Your task to perform on an android device: turn off notifications settings in the gmail app Image 0: 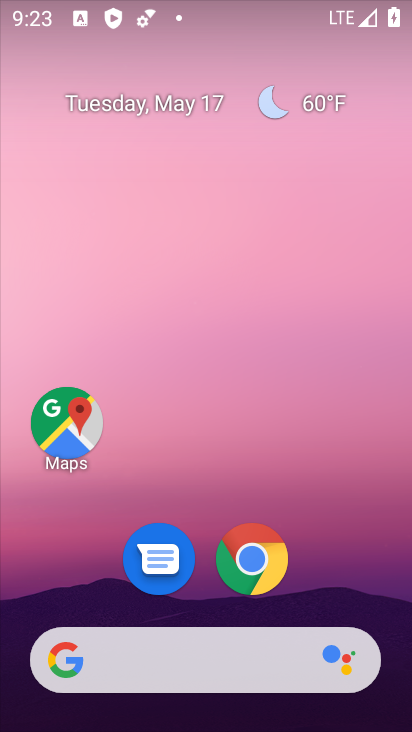
Step 0: drag from (199, 600) to (226, 203)
Your task to perform on an android device: turn off notifications settings in the gmail app Image 1: 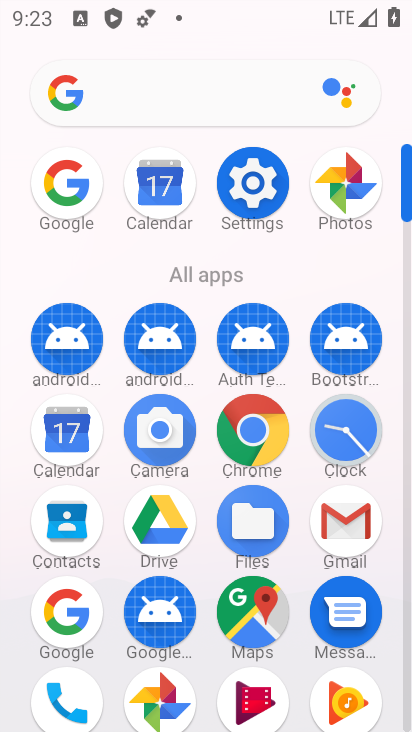
Step 1: click (329, 537)
Your task to perform on an android device: turn off notifications settings in the gmail app Image 2: 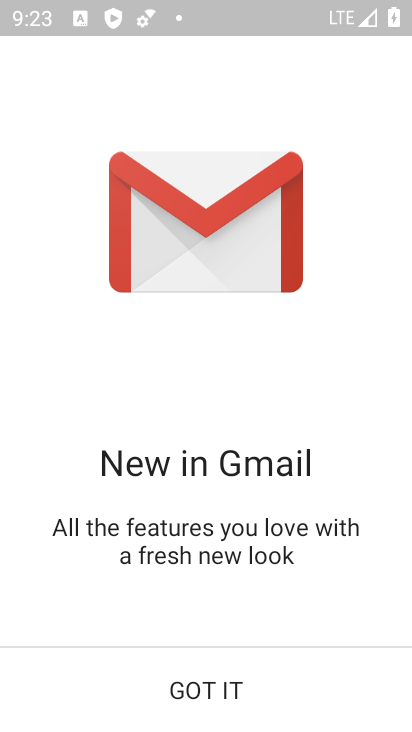
Step 2: click (258, 671)
Your task to perform on an android device: turn off notifications settings in the gmail app Image 3: 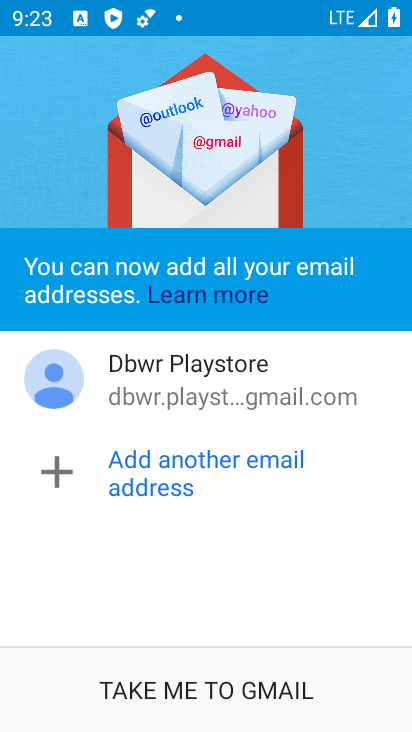
Step 3: click (258, 671)
Your task to perform on an android device: turn off notifications settings in the gmail app Image 4: 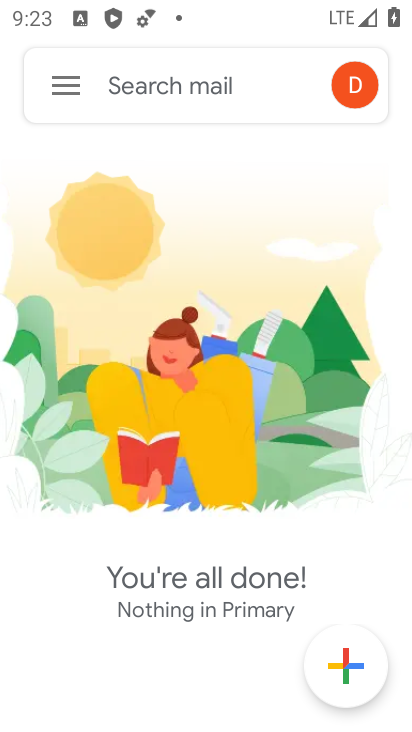
Step 4: click (62, 83)
Your task to perform on an android device: turn off notifications settings in the gmail app Image 5: 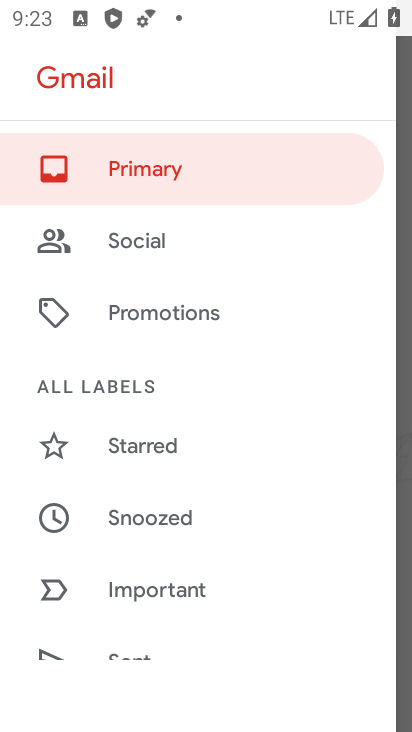
Step 5: drag from (216, 591) to (226, 292)
Your task to perform on an android device: turn off notifications settings in the gmail app Image 6: 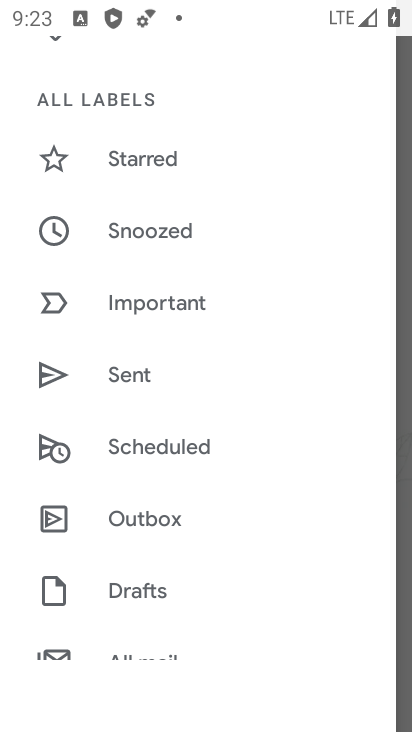
Step 6: drag from (237, 577) to (280, 259)
Your task to perform on an android device: turn off notifications settings in the gmail app Image 7: 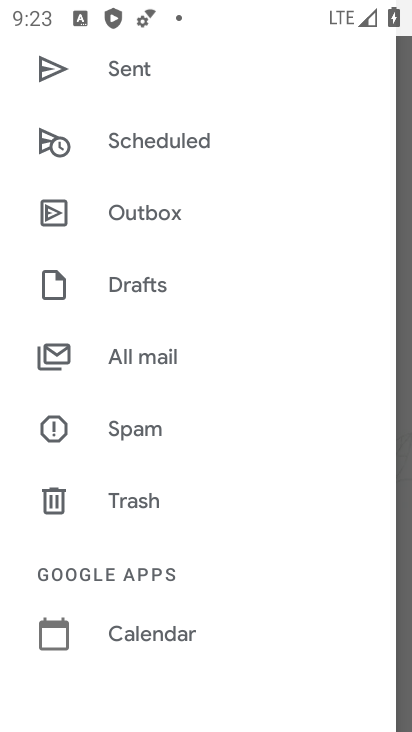
Step 7: drag from (171, 616) to (209, 302)
Your task to perform on an android device: turn off notifications settings in the gmail app Image 8: 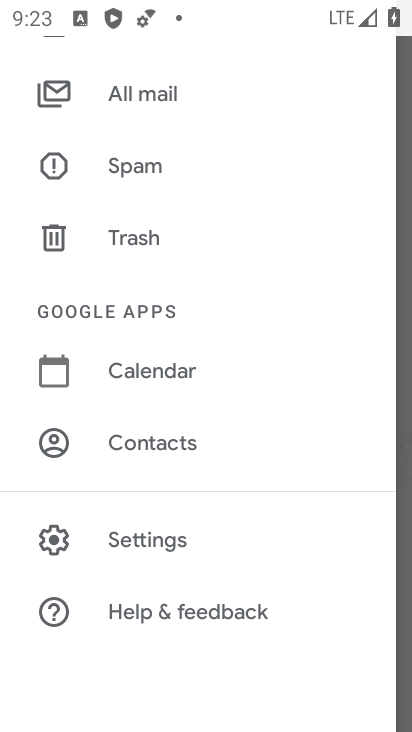
Step 8: click (152, 537)
Your task to perform on an android device: turn off notifications settings in the gmail app Image 9: 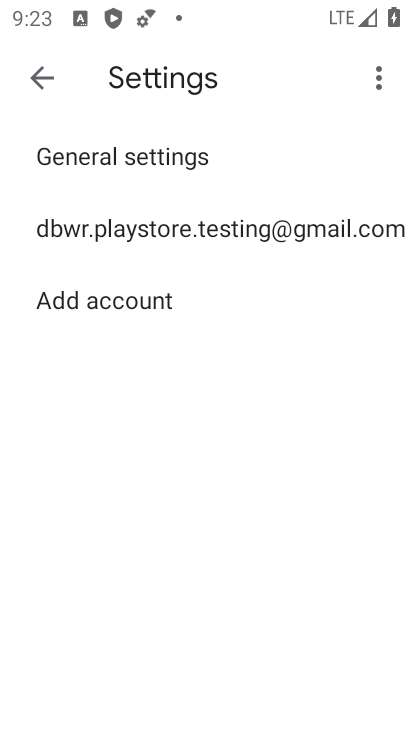
Step 9: click (196, 236)
Your task to perform on an android device: turn off notifications settings in the gmail app Image 10: 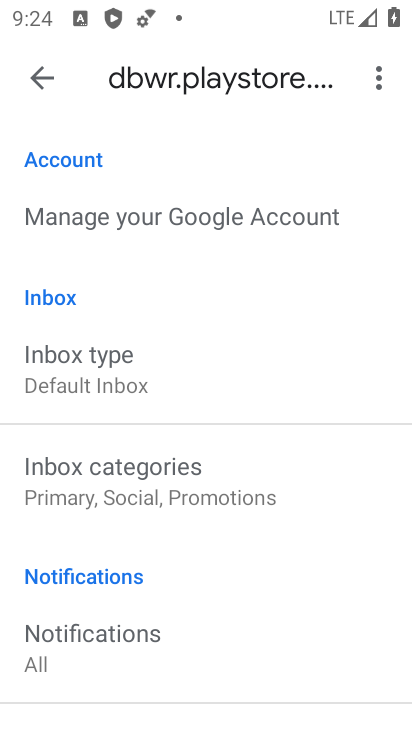
Step 10: drag from (157, 642) to (186, 381)
Your task to perform on an android device: turn off notifications settings in the gmail app Image 11: 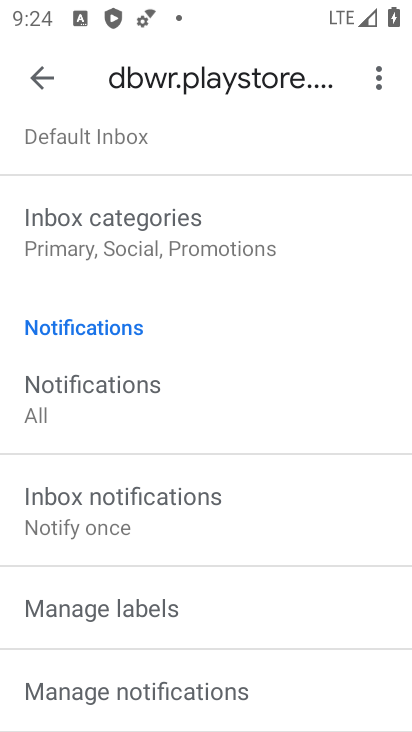
Step 11: drag from (157, 581) to (173, 345)
Your task to perform on an android device: turn off notifications settings in the gmail app Image 12: 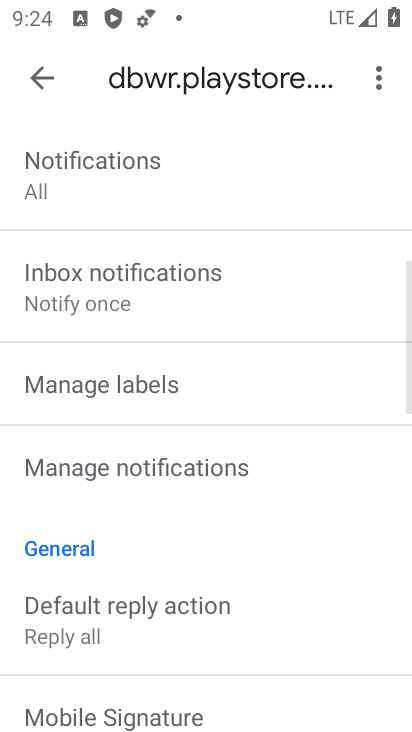
Step 12: click (174, 450)
Your task to perform on an android device: turn off notifications settings in the gmail app Image 13: 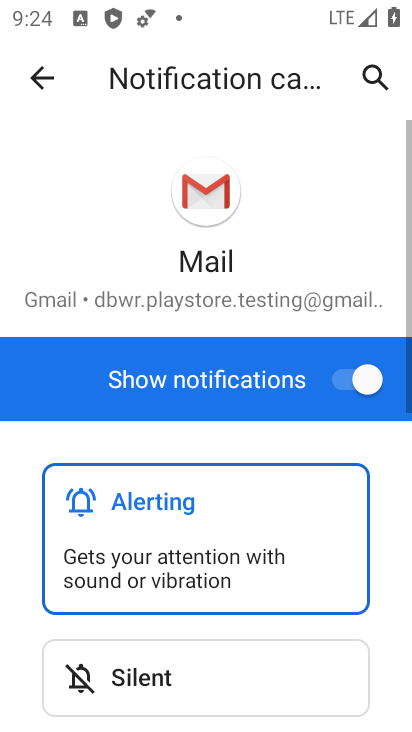
Step 13: click (338, 373)
Your task to perform on an android device: turn off notifications settings in the gmail app Image 14: 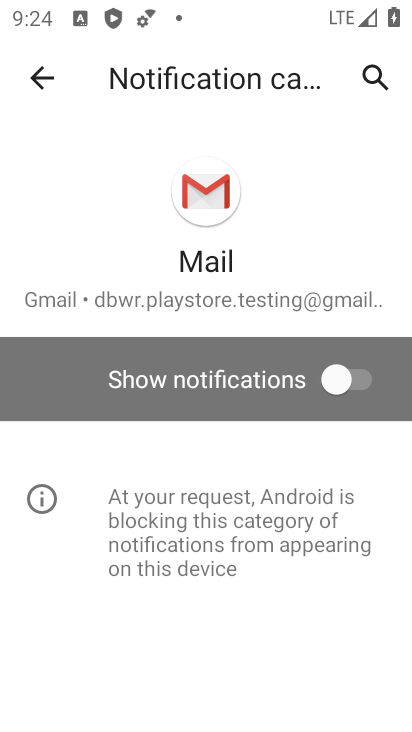
Step 14: task complete